Your task to perform on an android device: visit the assistant section in the google photos Image 0: 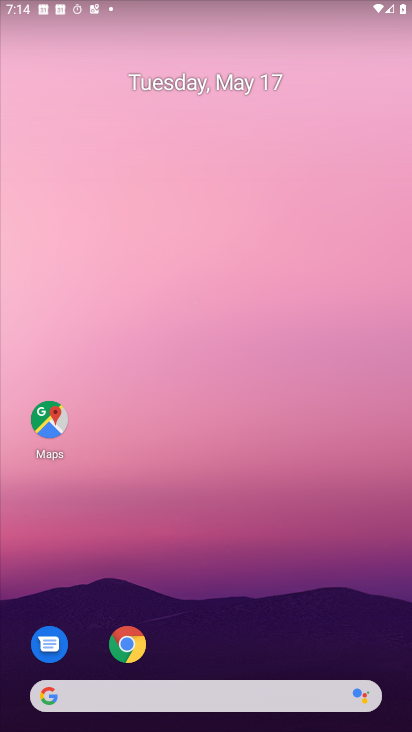
Step 0: drag from (319, 624) to (294, 6)
Your task to perform on an android device: visit the assistant section in the google photos Image 1: 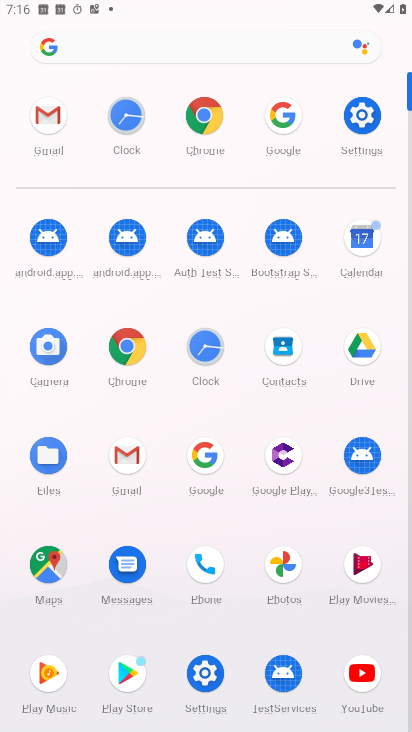
Step 1: click (270, 561)
Your task to perform on an android device: visit the assistant section in the google photos Image 2: 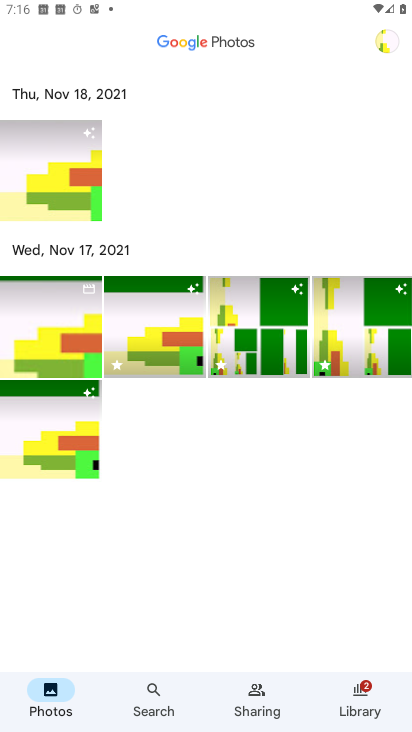
Step 2: task complete